Your task to perform on an android device: Do I have any events tomorrow? Image 0: 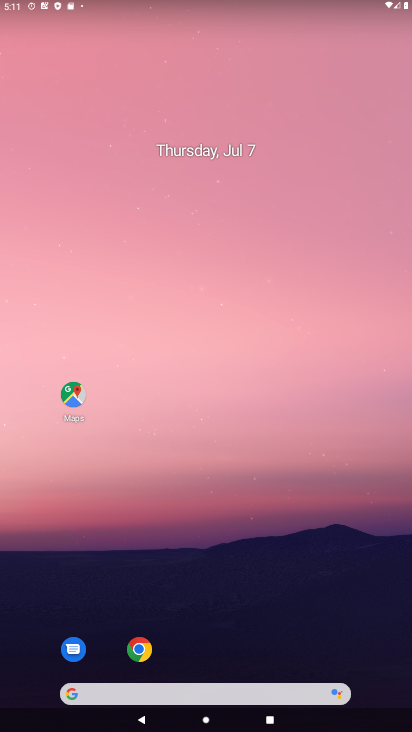
Step 0: drag from (381, 717) to (198, 45)
Your task to perform on an android device: Do I have any events tomorrow? Image 1: 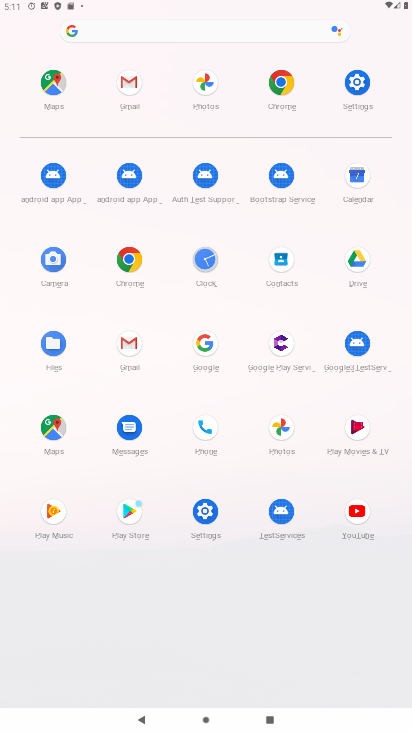
Step 1: click (355, 172)
Your task to perform on an android device: Do I have any events tomorrow? Image 2: 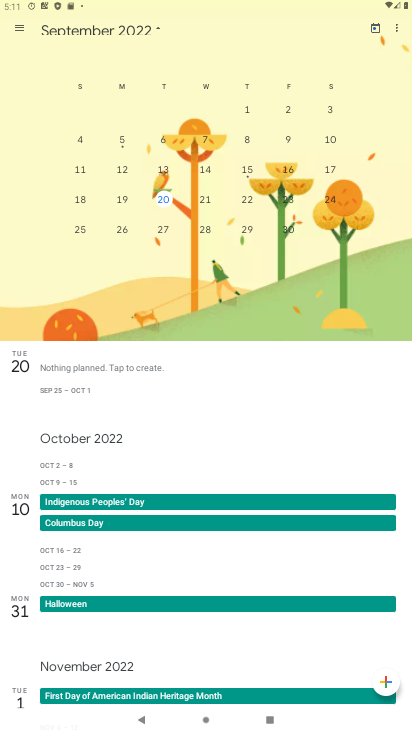
Step 2: task complete